Your task to perform on an android device: check android version Image 0: 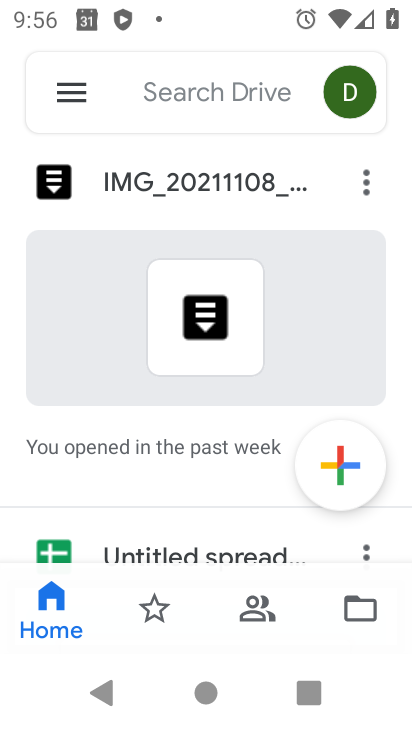
Step 0: press home button
Your task to perform on an android device: check android version Image 1: 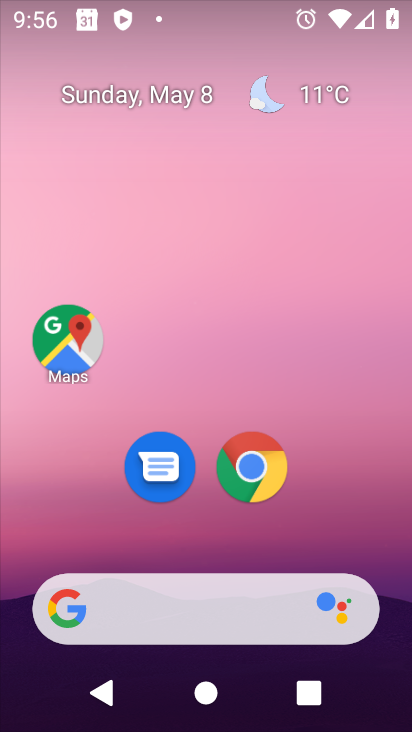
Step 1: drag from (116, 420) to (249, 154)
Your task to perform on an android device: check android version Image 2: 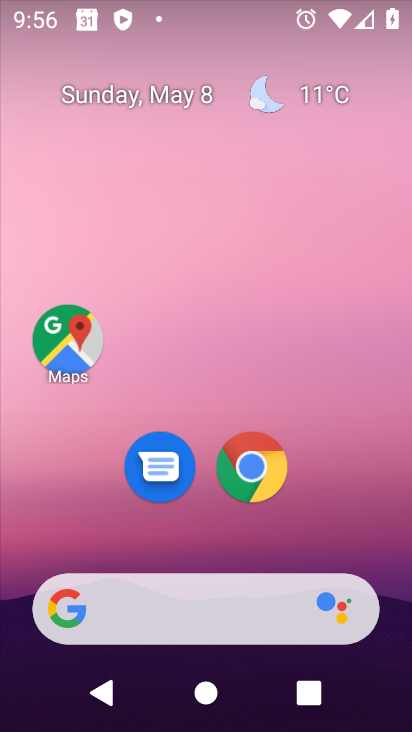
Step 2: drag from (121, 493) to (235, 233)
Your task to perform on an android device: check android version Image 3: 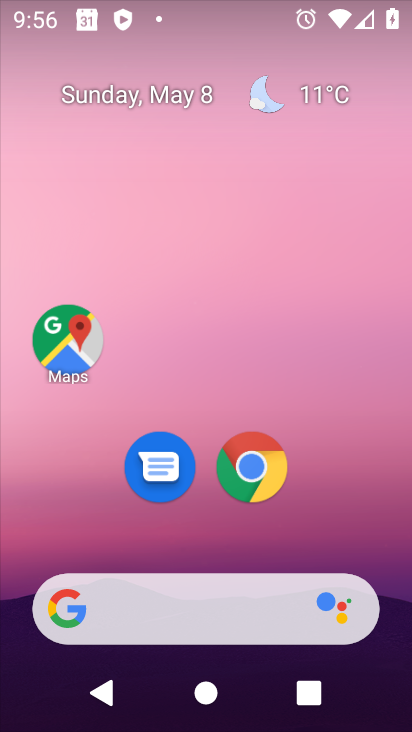
Step 3: drag from (25, 596) to (245, 114)
Your task to perform on an android device: check android version Image 4: 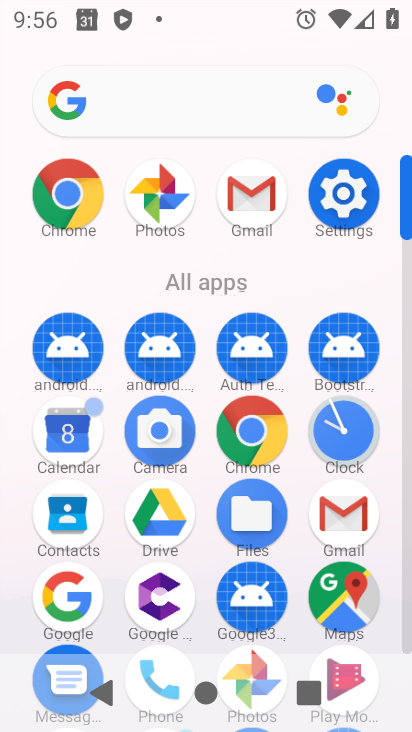
Step 4: click (340, 199)
Your task to perform on an android device: check android version Image 5: 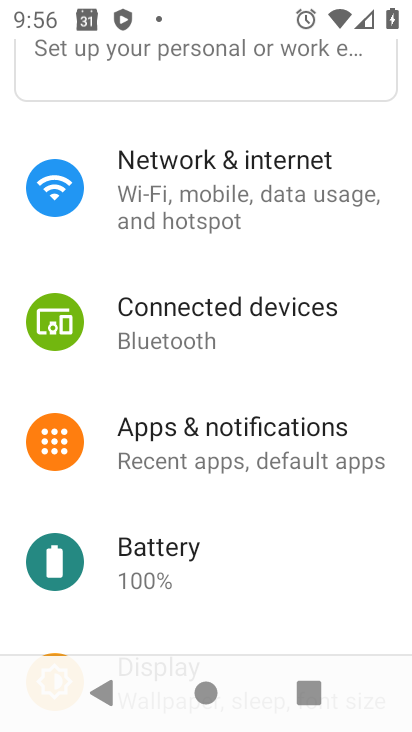
Step 5: drag from (207, 537) to (357, 43)
Your task to perform on an android device: check android version Image 6: 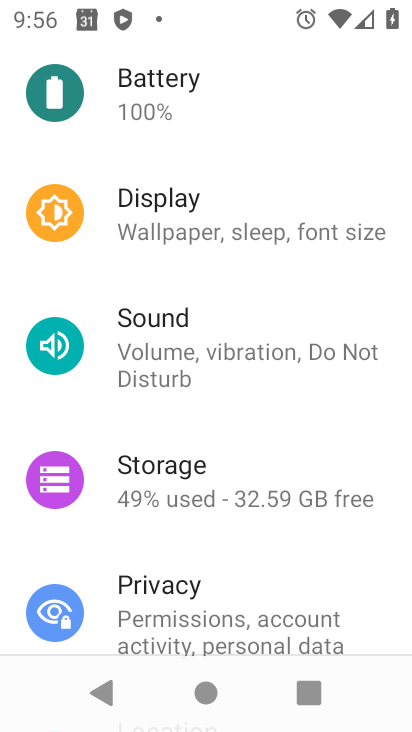
Step 6: drag from (234, 580) to (328, 227)
Your task to perform on an android device: check android version Image 7: 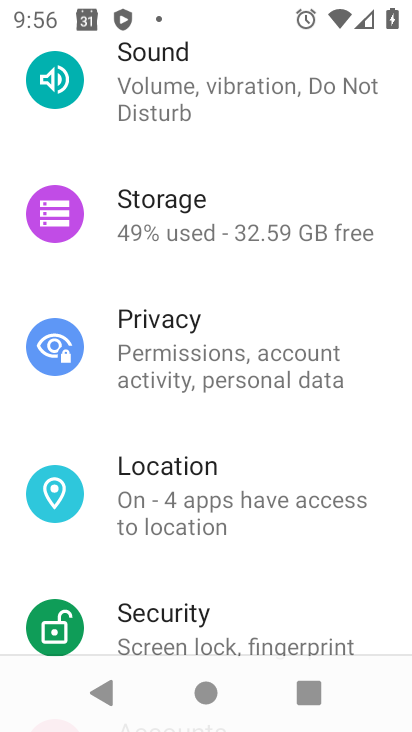
Step 7: drag from (216, 635) to (372, 254)
Your task to perform on an android device: check android version Image 8: 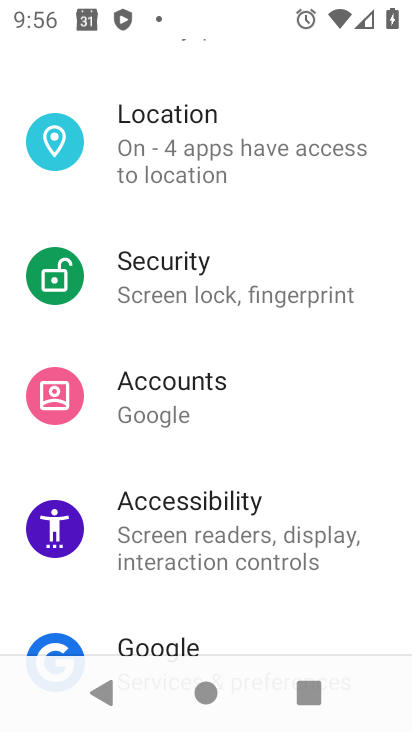
Step 8: drag from (199, 578) to (284, 212)
Your task to perform on an android device: check android version Image 9: 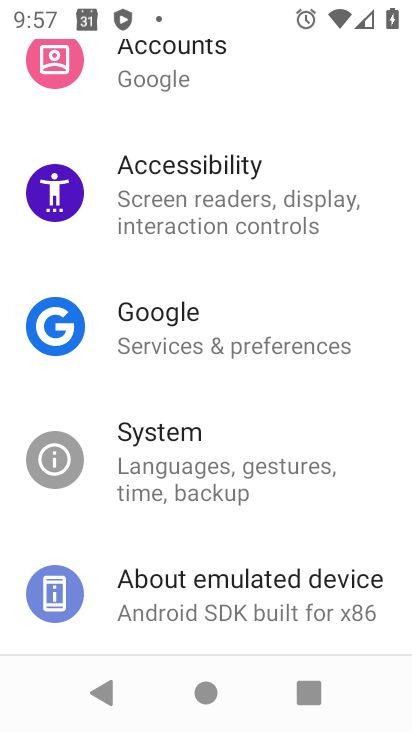
Step 9: click (190, 600)
Your task to perform on an android device: check android version Image 10: 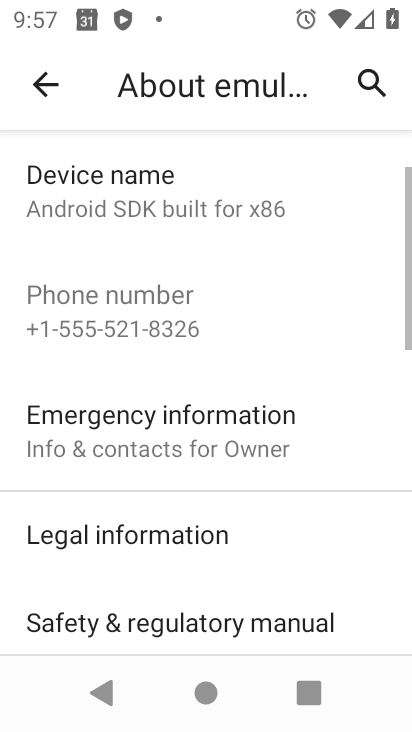
Step 10: drag from (192, 602) to (285, 245)
Your task to perform on an android device: check android version Image 11: 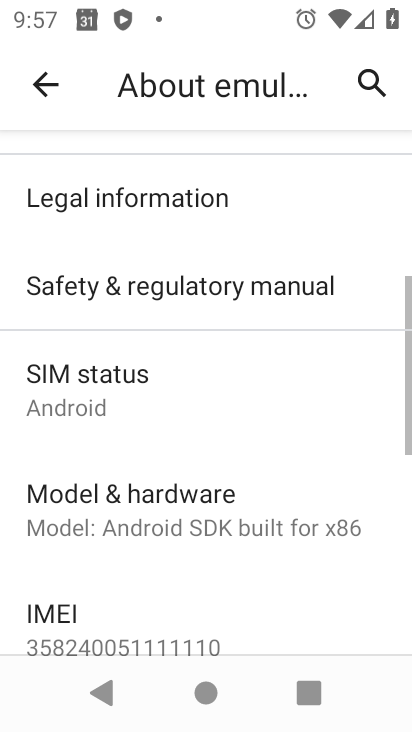
Step 11: drag from (102, 592) to (225, 263)
Your task to perform on an android device: check android version Image 12: 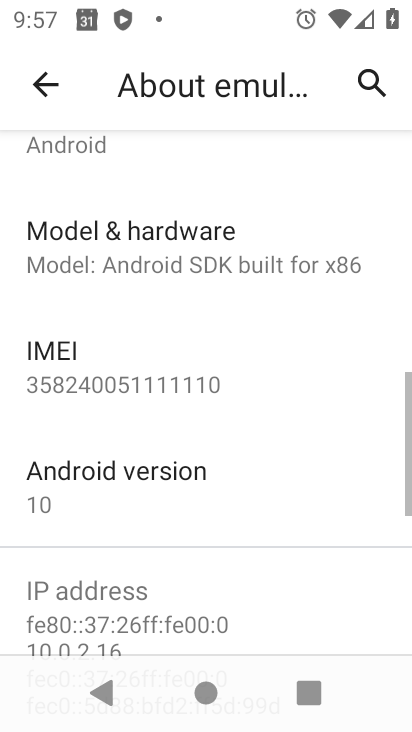
Step 12: click (170, 495)
Your task to perform on an android device: check android version Image 13: 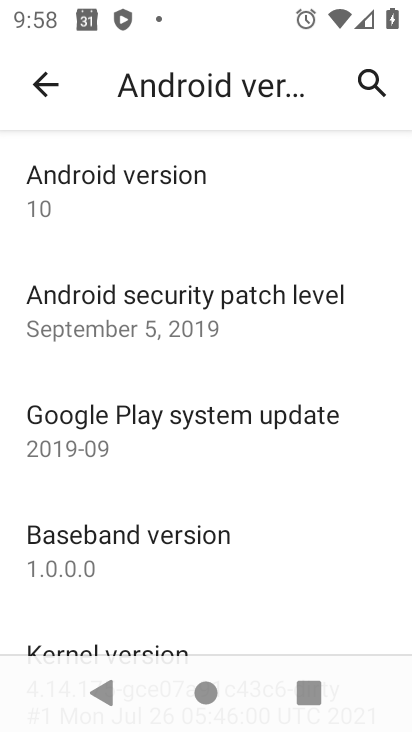
Step 13: task complete